Your task to perform on an android device: Go to eBay Image 0: 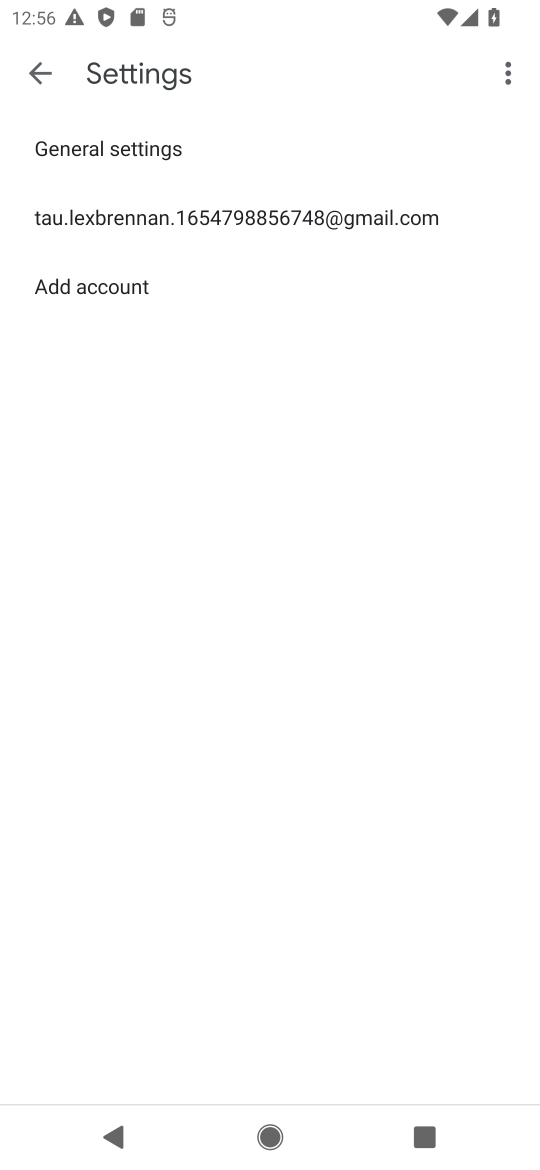
Step 0: press back button
Your task to perform on an android device: Go to eBay Image 1: 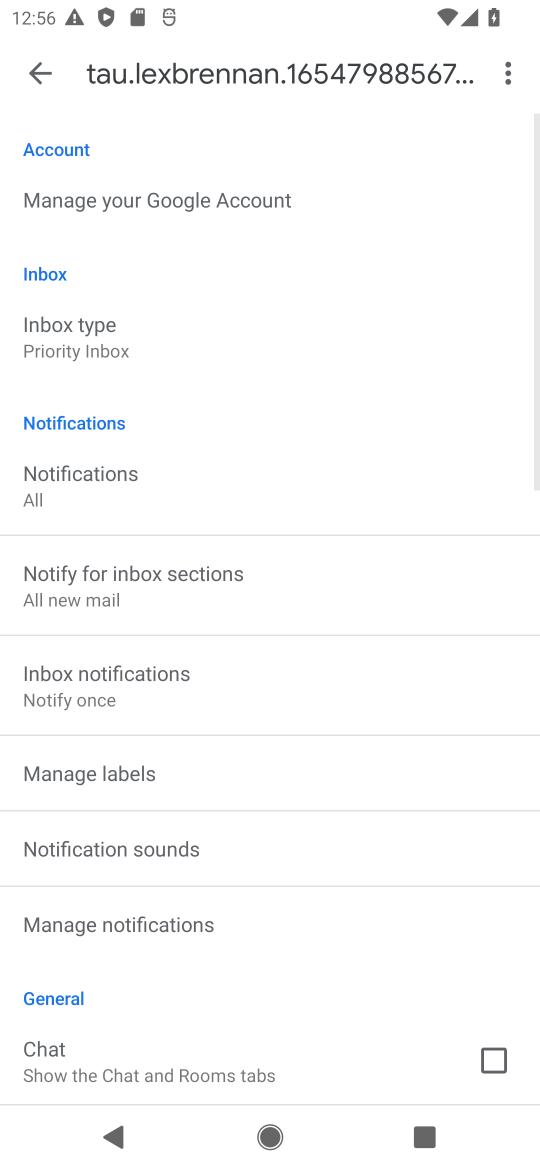
Step 1: press back button
Your task to perform on an android device: Go to eBay Image 2: 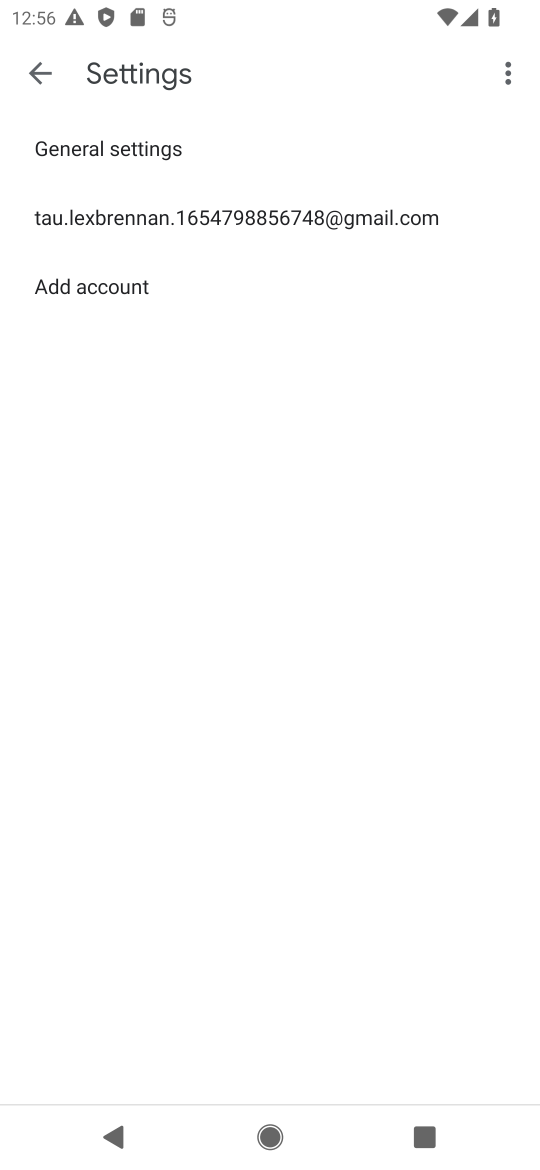
Step 2: press back button
Your task to perform on an android device: Go to eBay Image 3: 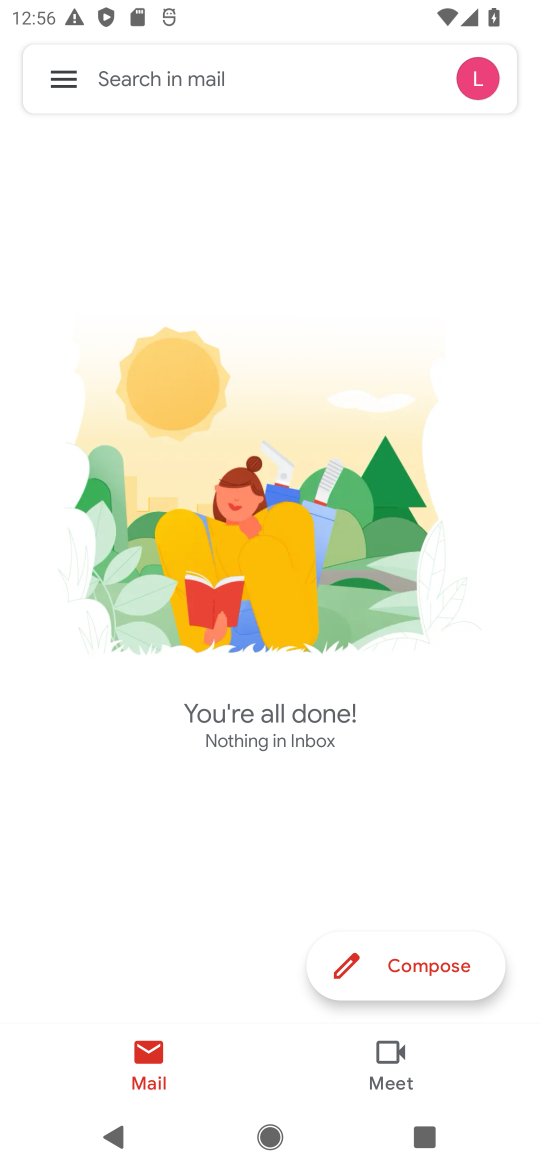
Step 3: press back button
Your task to perform on an android device: Go to eBay Image 4: 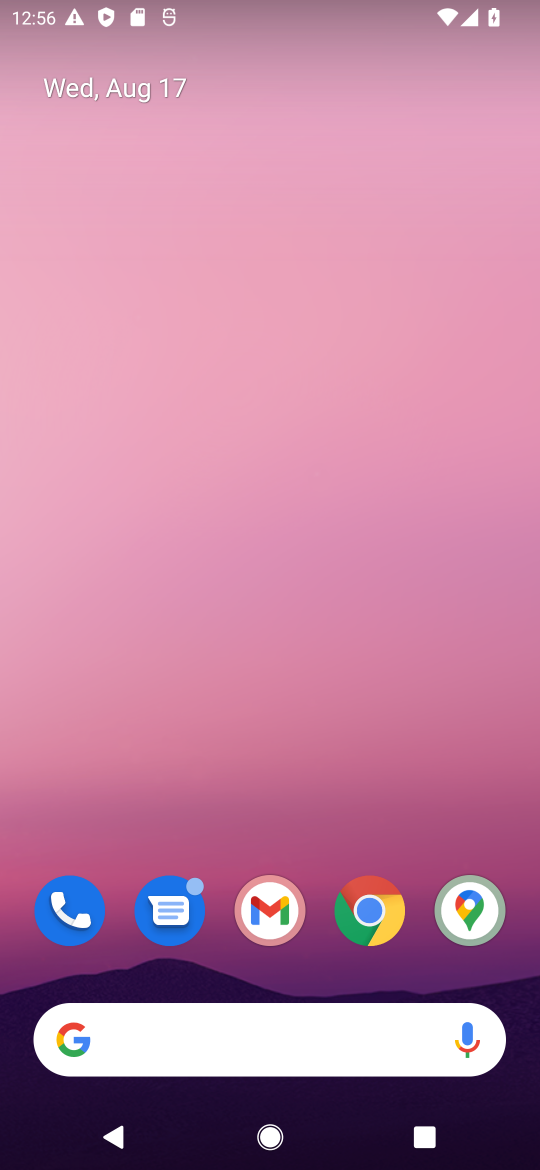
Step 4: click (385, 892)
Your task to perform on an android device: Go to eBay Image 5: 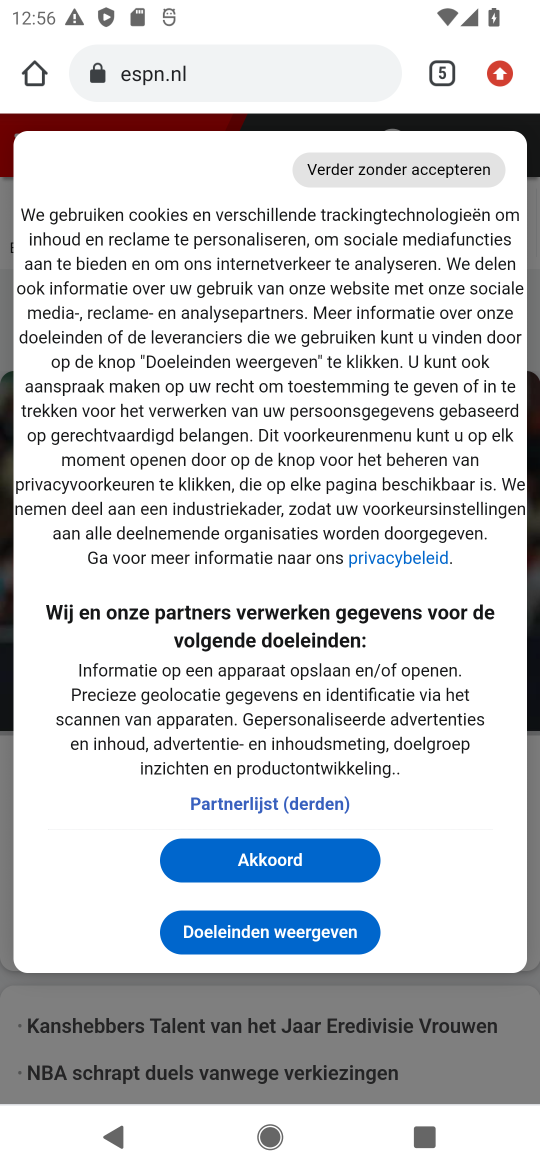
Step 5: click (449, 74)
Your task to perform on an android device: Go to eBay Image 6: 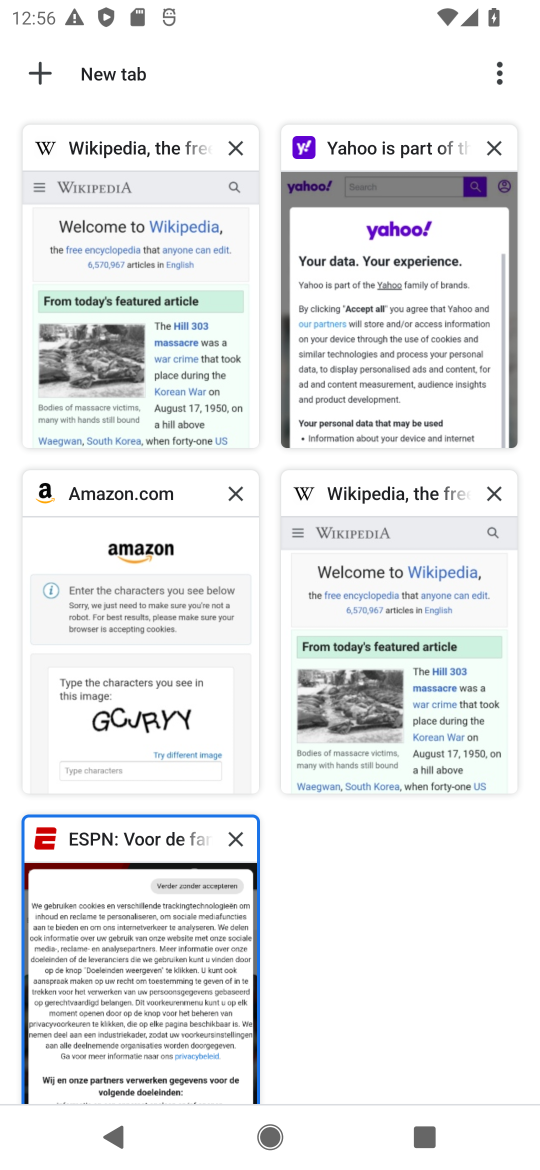
Step 6: click (34, 73)
Your task to perform on an android device: Go to eBay Image 7: 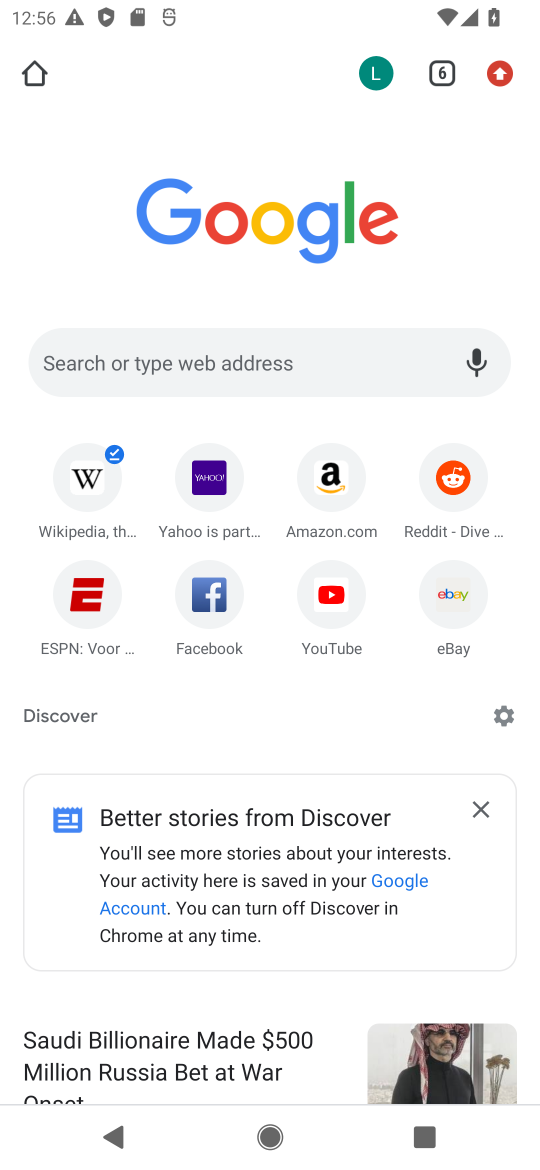
Step 7: click (436, 599)
Your task to perform on an android device: Go to eBay Image 8: 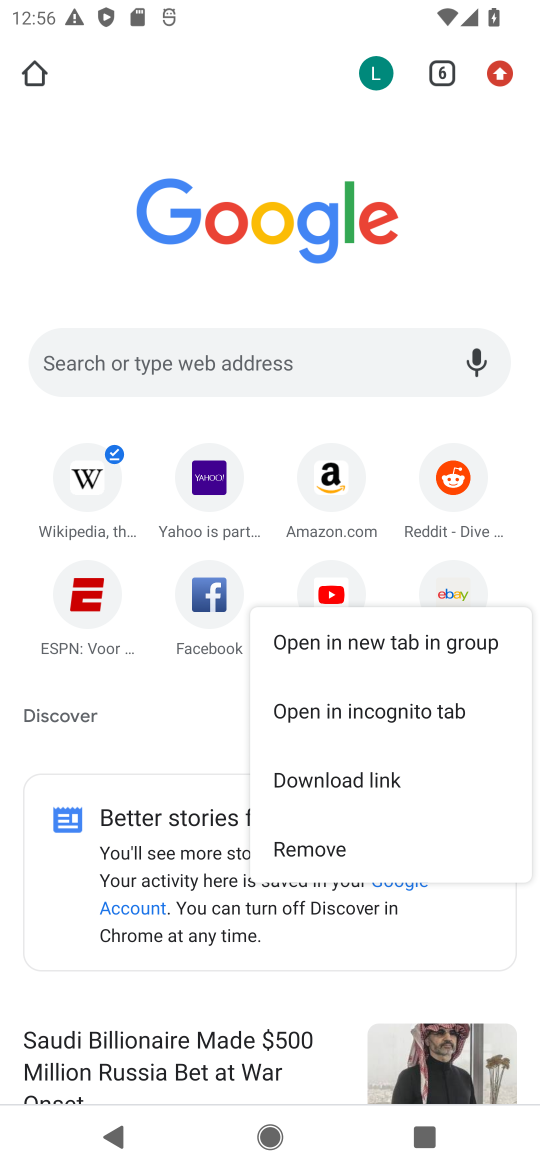
Step 8: click (446, 586)
Your task to perform on an android device: Go to eBay Image 9: 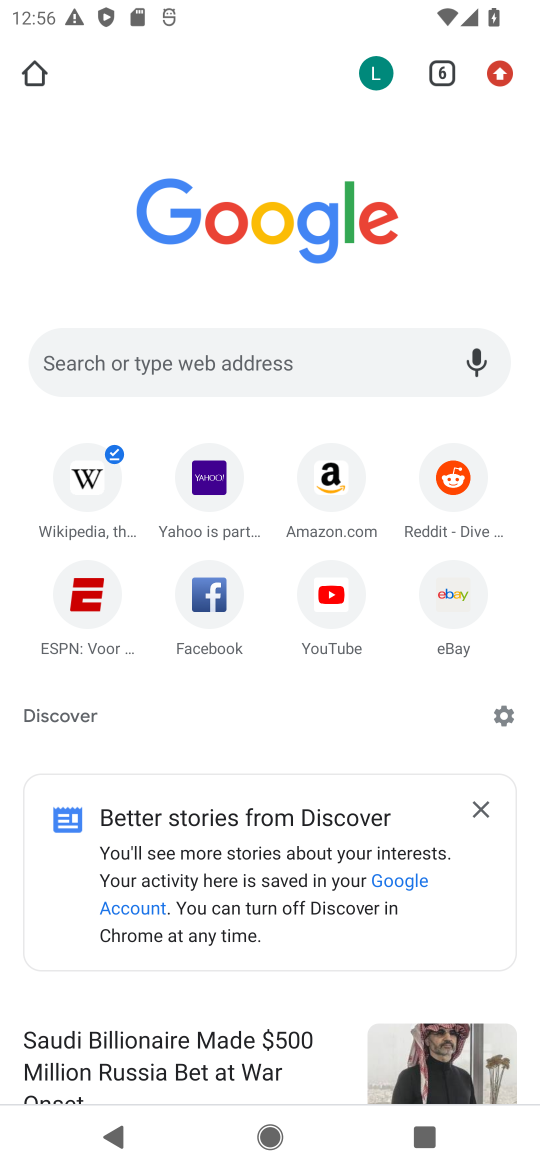
Step 9: click (451, 591)
Your task to perform on an android device: Go to eBay Image 10: 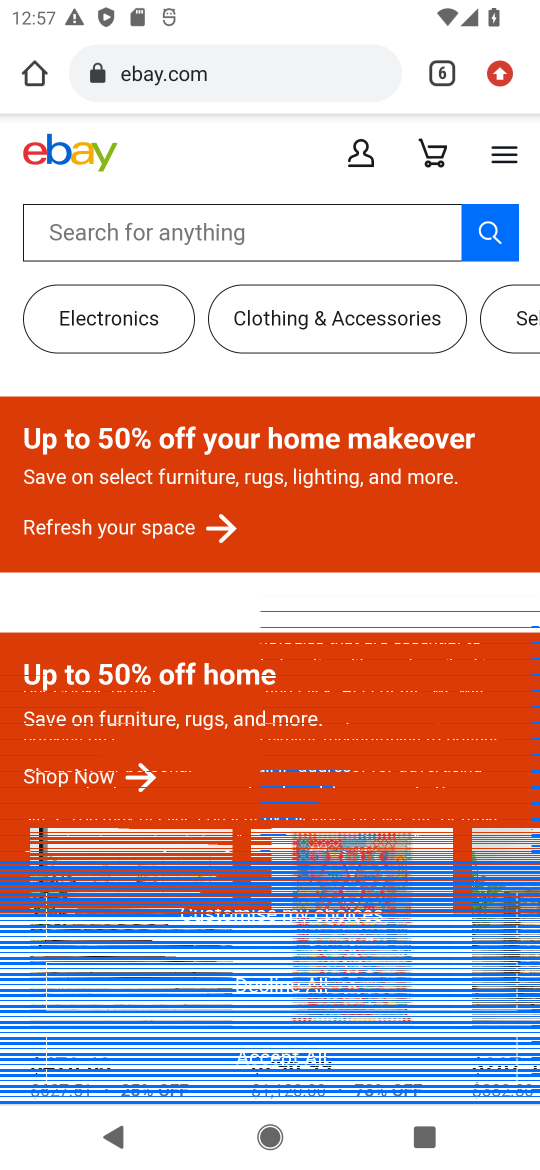
Step 10: task complete